Your task to perform on an android device: Open Reddit.com Image 0: 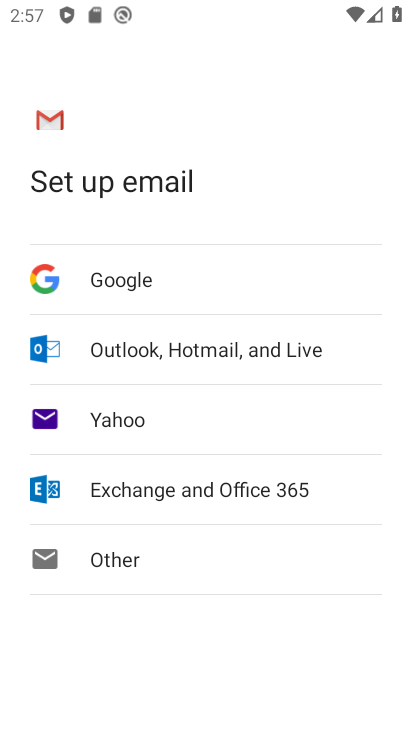
Step 0: press home button
Your task to perform on an android device: Open Reddit.com Image 1: 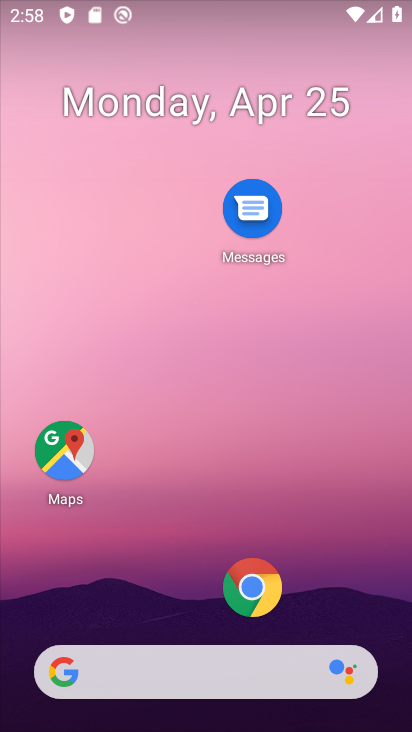
Step 1: click (265, 589)
Your task to perform on an android device: Open Reddit.com Image 2: 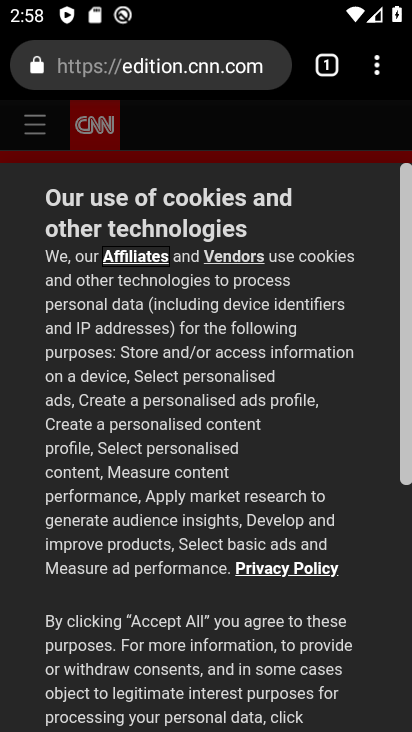
Step 2: click (316, 74)
Your task to perform on an android device: Open Reddit.com Image 3: 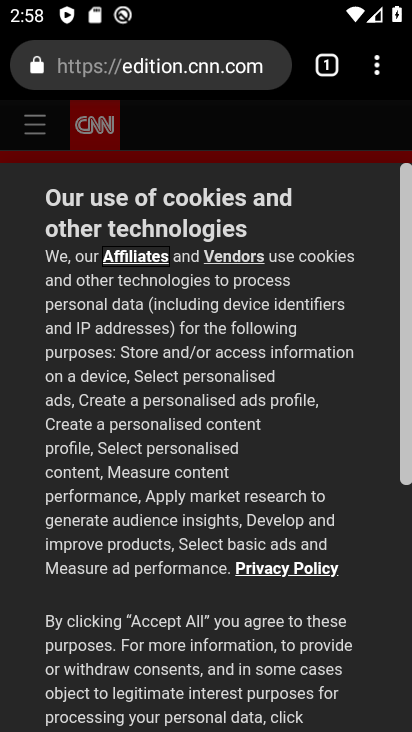
Step 3: click (222, 74)
Your task to perform on an android device: Open Reddit.com Image 4: 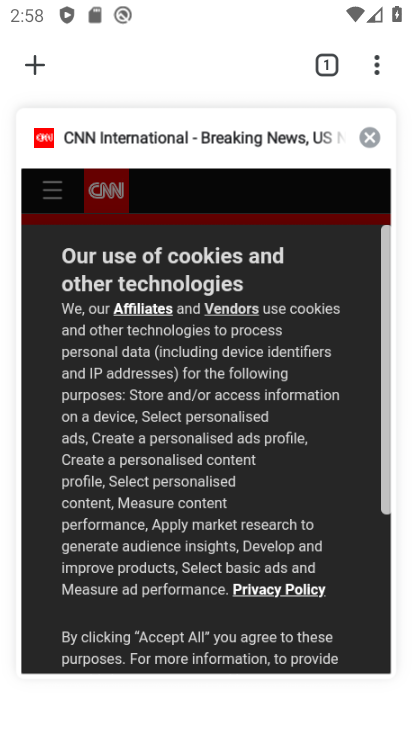
Step 4: click (40, 74)
Your task to perform on an android device: Open Reddit.com Image 5: 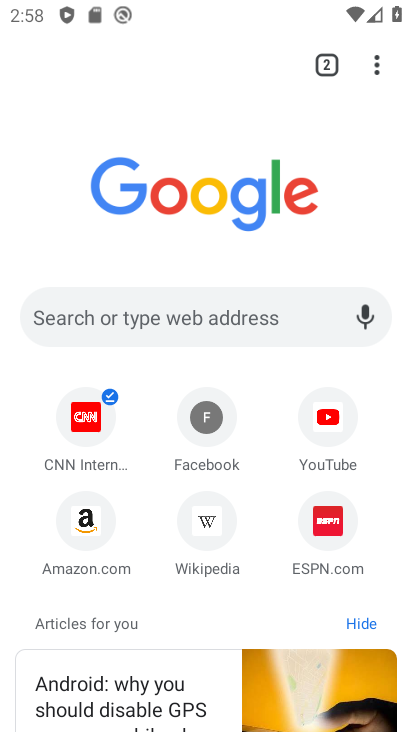
Step 5: click (141, 335)
Your task to perform on an android device: Open Reddit.com Image 6: 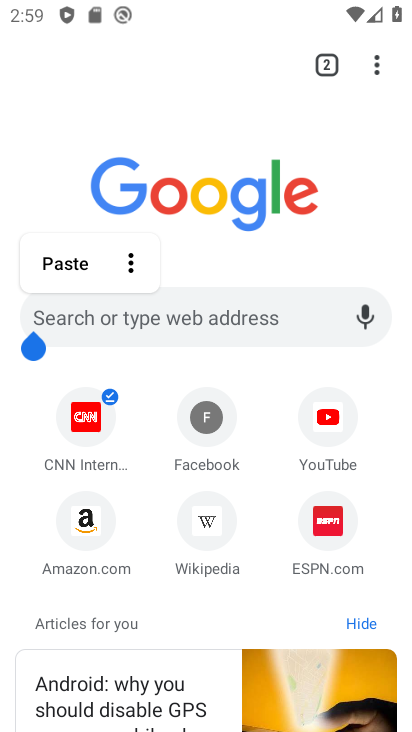
Step 6: click (179, 332)
Your task to perform on an android device: Open Reddit.com Image 7: 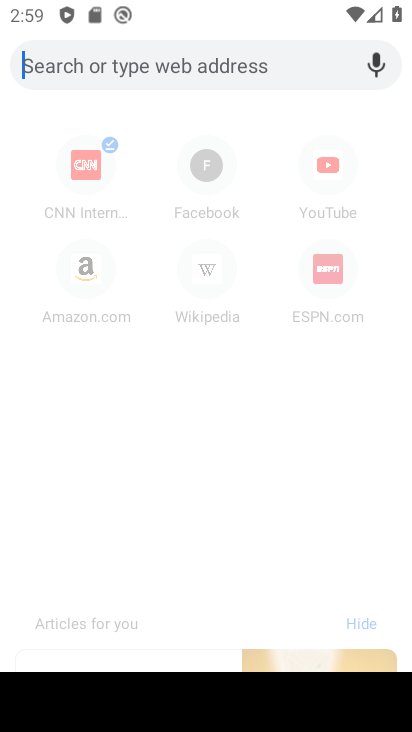
Step 7: type "Reddit.com"
Your task to perform on an android device: Open Reddit.com Image 8: 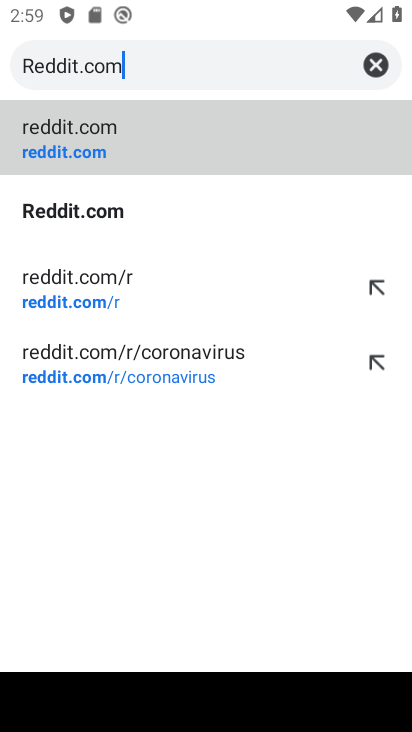
Step 8: click (124, 155)
Your task to perform on an android device: Open Reddit.com Image 9: 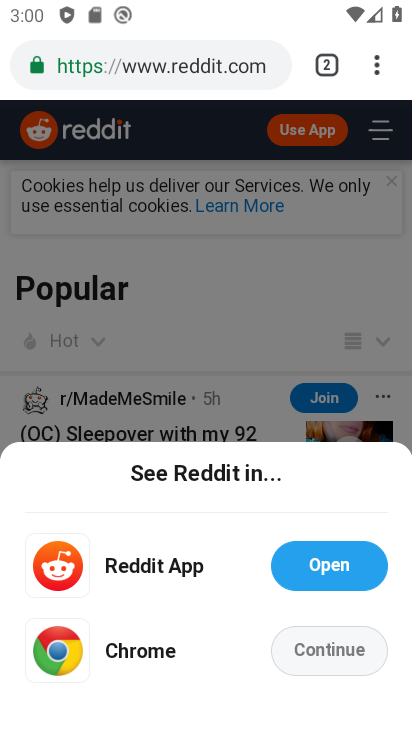
Step 9: task complete